Your task to perform on an android device: Search for a tv stand on Ikea Image 0: 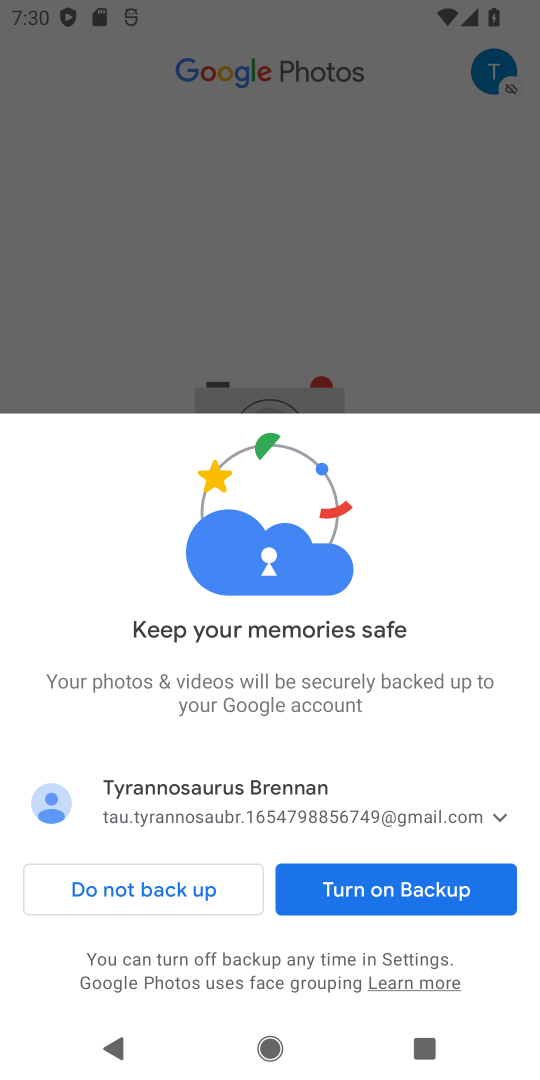
Step 0: press home button
Your task to perform on an android device: Search for a tv stand on Ikea Image 1: 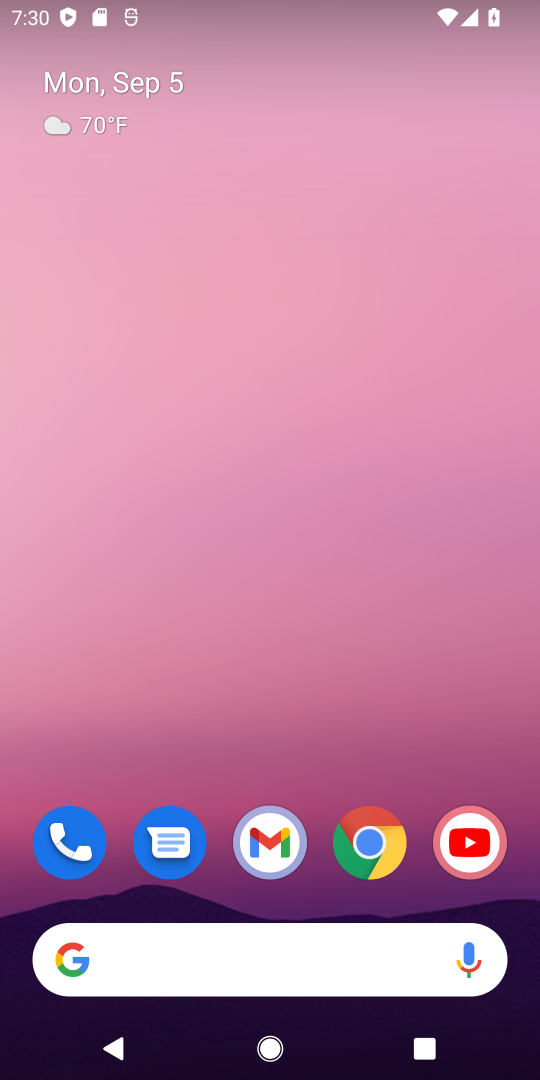
Step 1: click (374, 839)
Your task to perform on an android device: Search for a tv stand on Ikea Image 2: 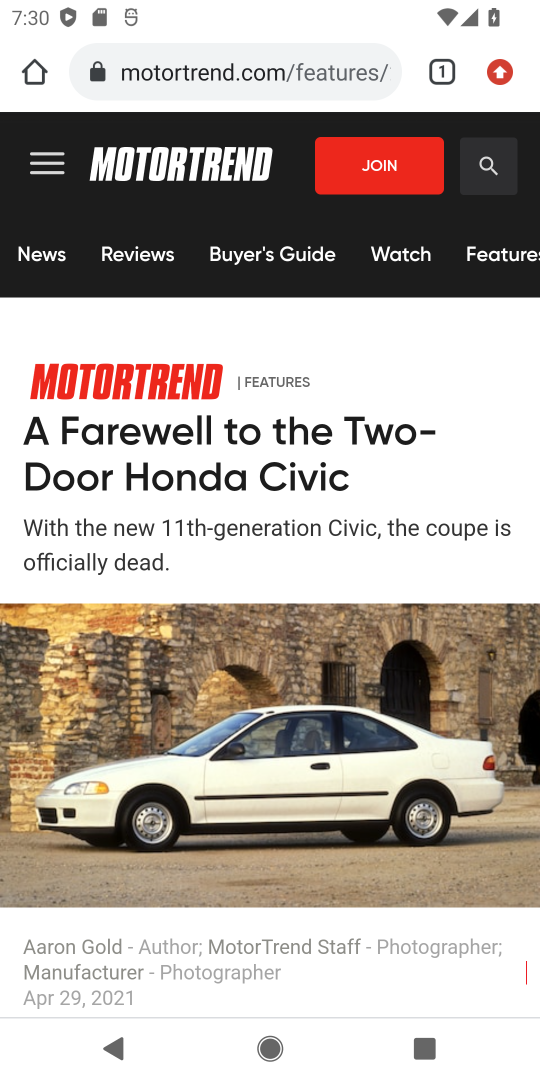
Step 2: click (335, 78)
Your task to perform on an android device: Search for a tv stand on Ikea Image 3: 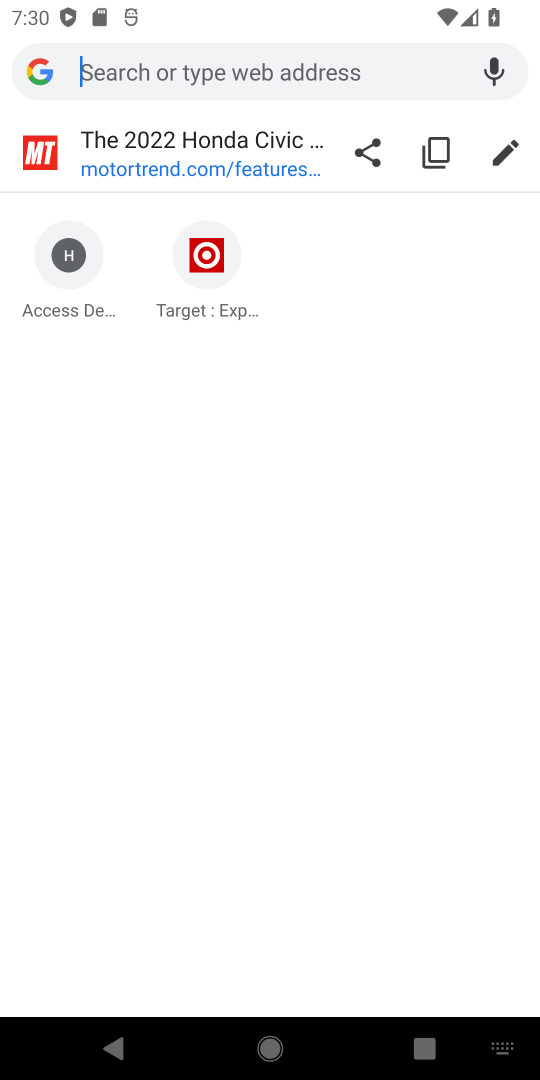
Step 3: type "Ikea"
Your task to perform on an android device: Search for a tv stand on Ikea Image 4: 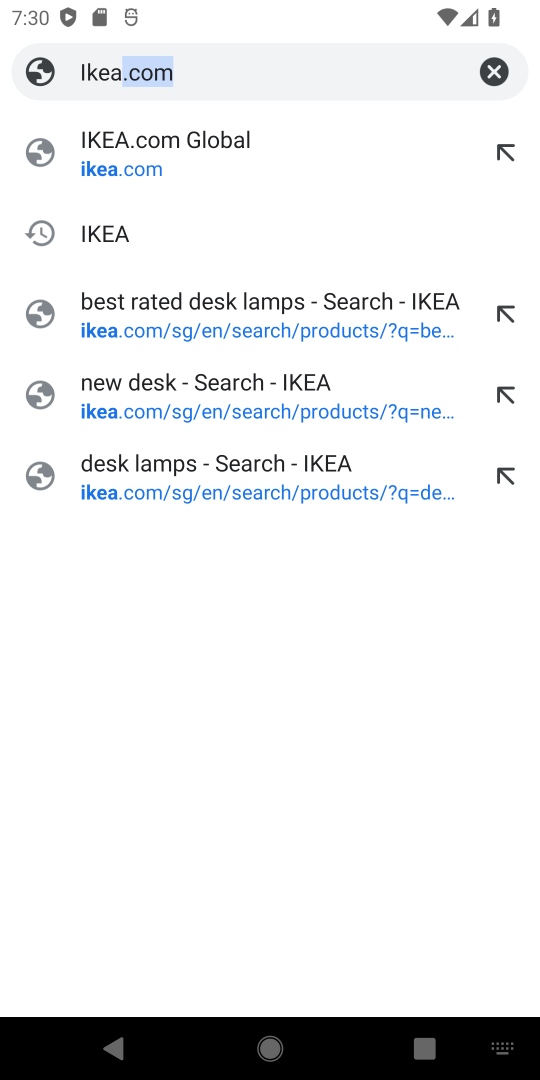
Step 4: click (185, 152)
Your task to perform on an android device: Search for a tv stand on Ikea Image 5: 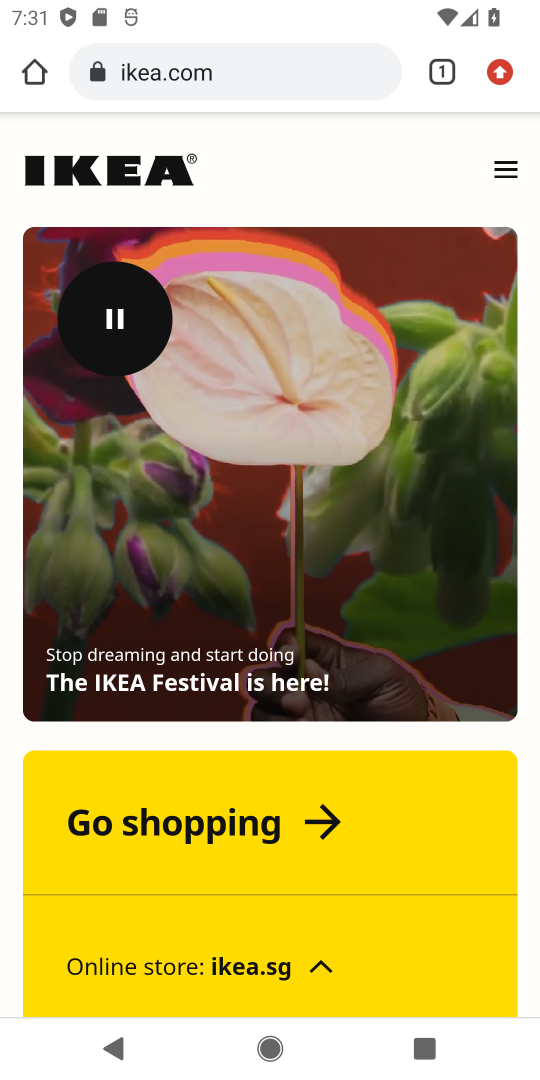
Step 5: click (339, 815)
Your task to perform on an android device: Search for a tv stand on Ikea Image 6: 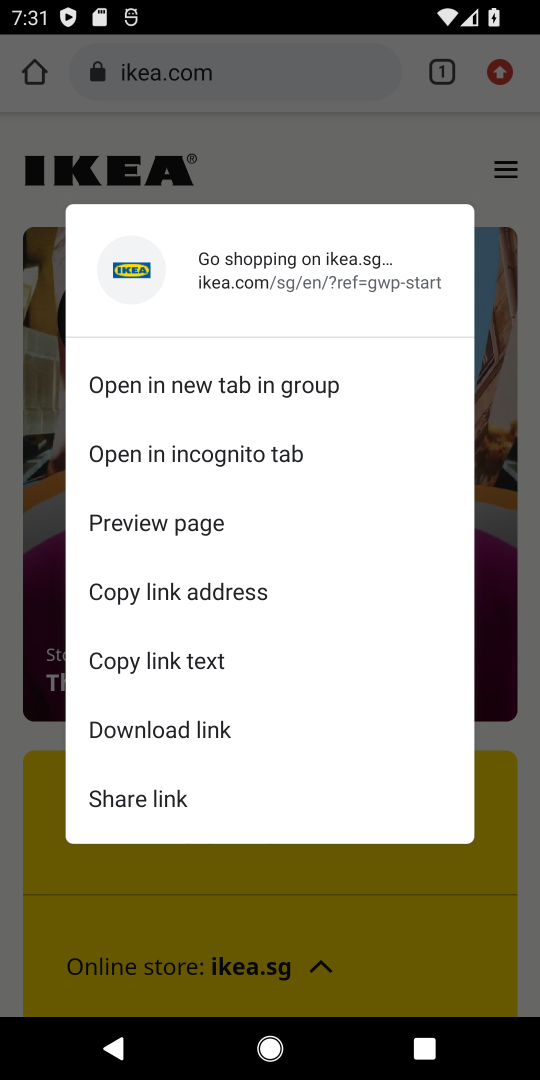
Step 6: click (327, 820)
Your task to perform on an android device: Search for a tv stand on Ikea Image 7: 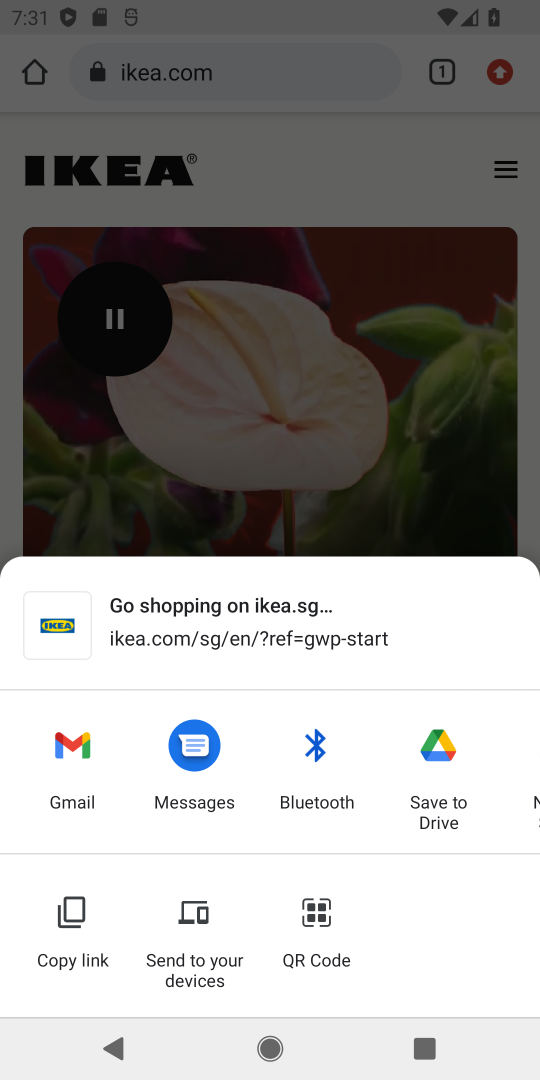
Step 7: click (308, 430)
Your task to perform on an android device: Search for a tv stand on Ikea Image 8: 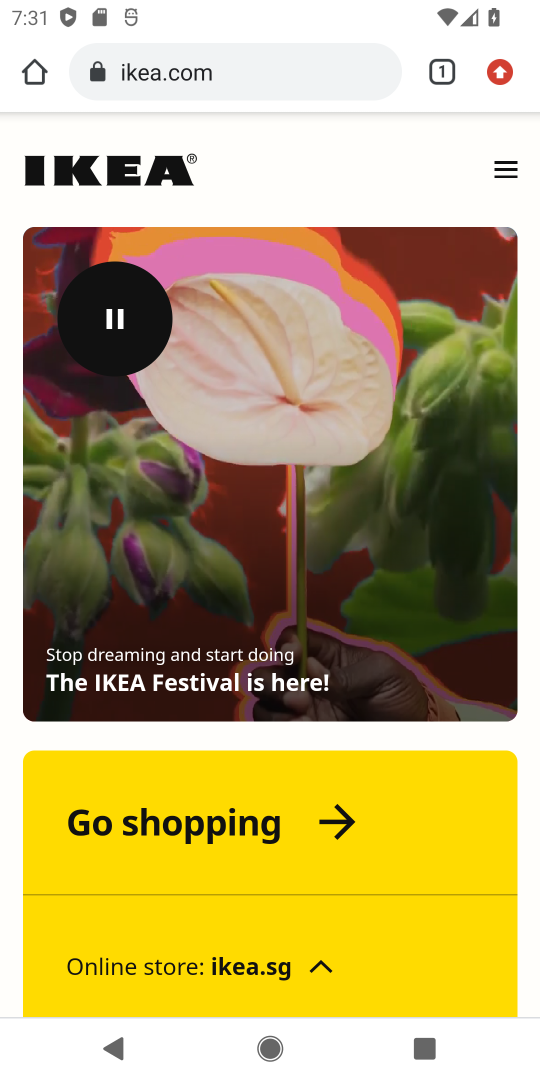
Step 8: click (337, 811)
Your task to perform on an android device: Search for a tv stand on Ikea Image 9: 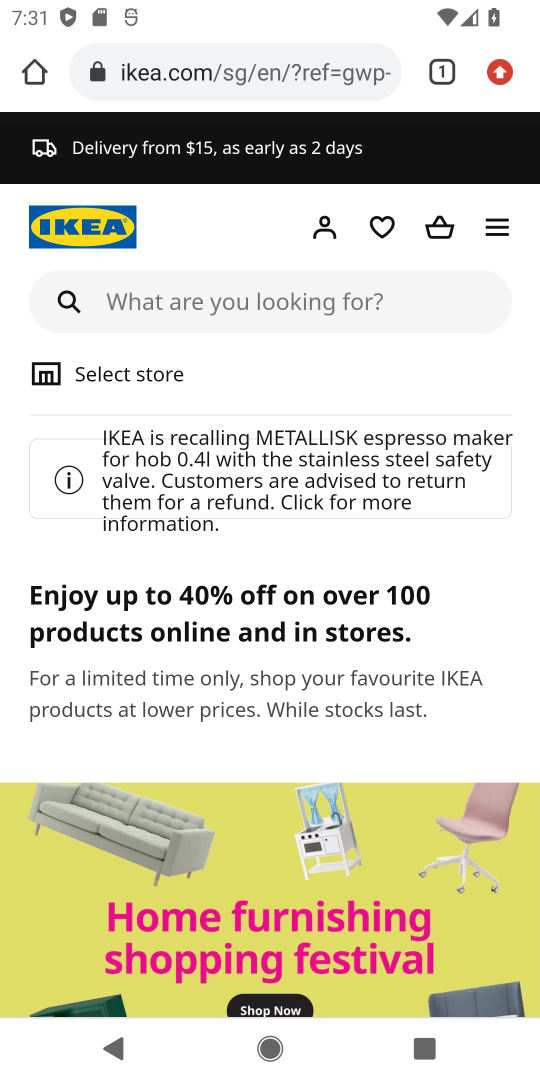
Step 9: click (249, 289)
Your task to perform on an android device: Search for a tv stand on Ikea Image 10: 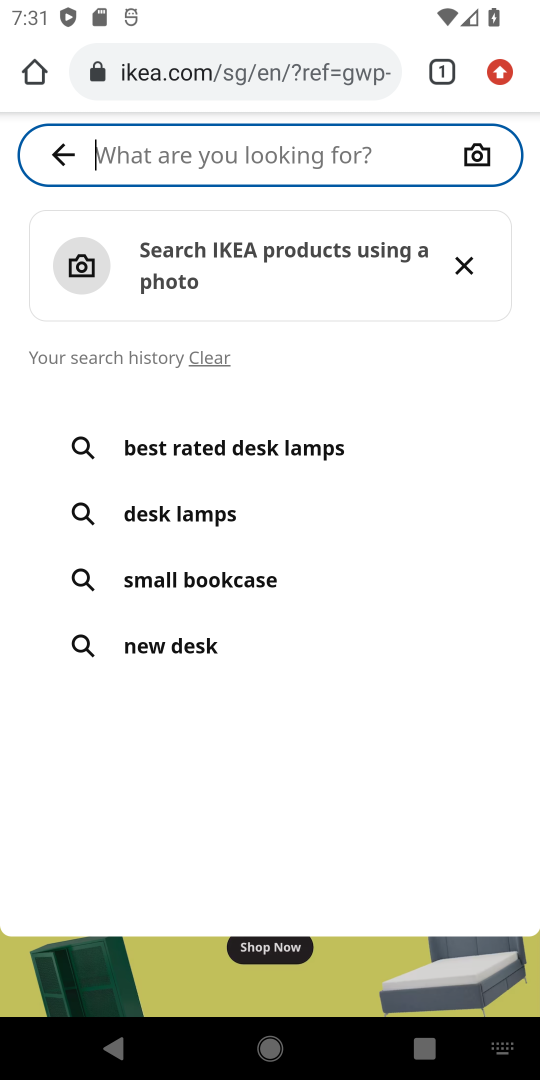
Step 10: type "tv stand"
Your task to perform on an android device: Search for a tv stand on Ikea Image 11: 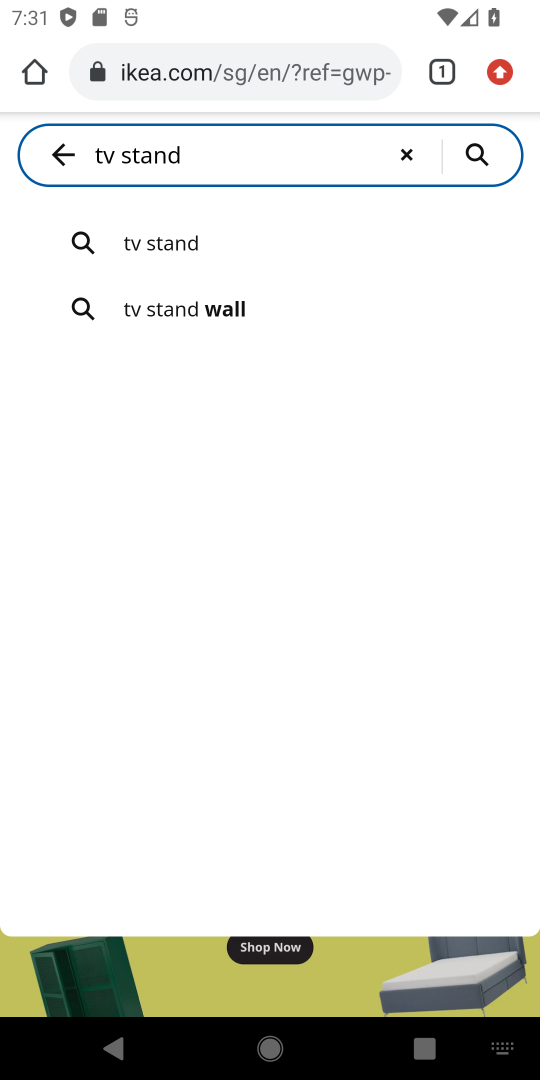
Step 11: click (181, 246)
Your task to perform on an android device: Search for a tv stand on Ikea Image 12: 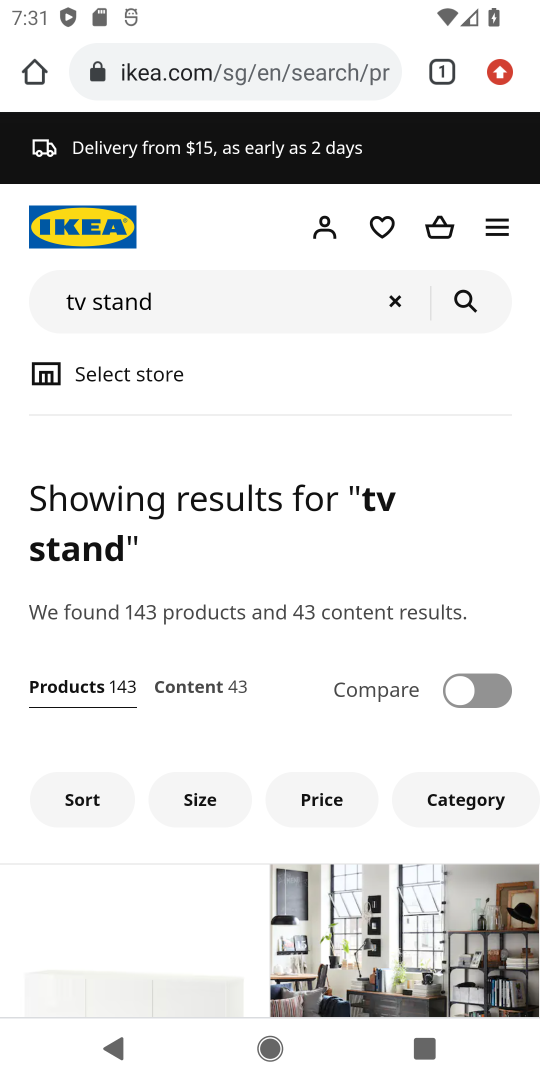
Step 12: task complete